Your task to perform on an android device: turn off notifications settings in the gmail app Image 0: 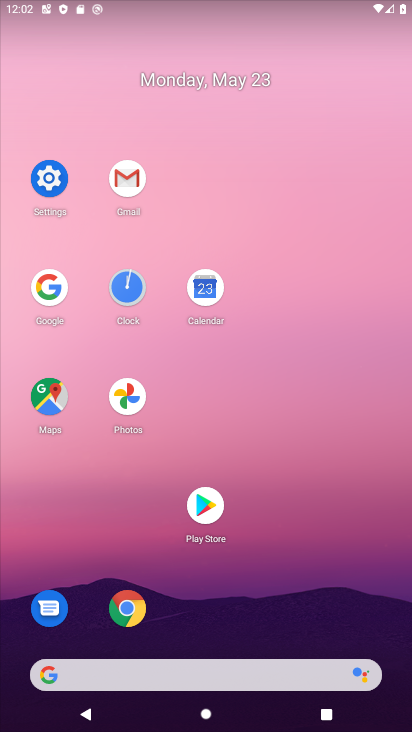
Step 0: click (115, 178)
Your task to perform on an android device: turn off notifications settings in the gmail app Image 1: 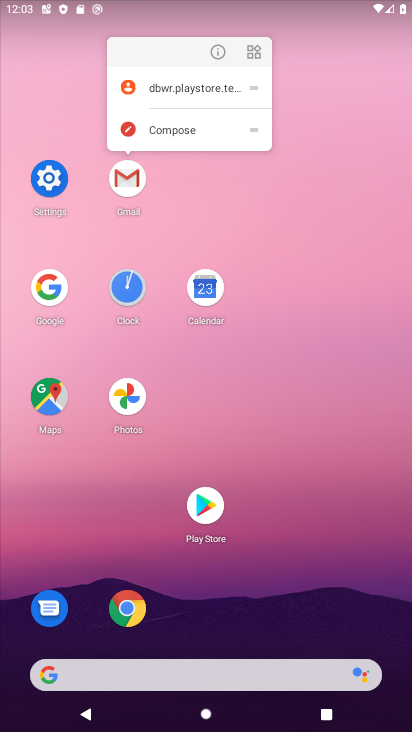
Step 1: click (127, 202)
Your task to perform on an android device: turn off notifications settings in the gmail app Image 2: 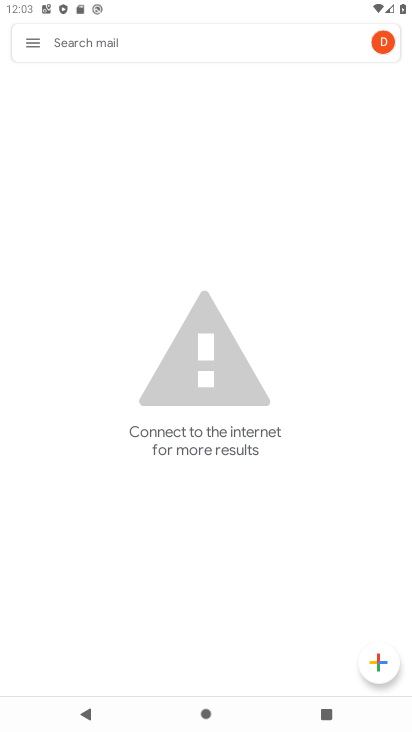
Step 2: click (34, 45)
Your task to perform on an android device: turn off notifications settings in the gmail app Image 3: 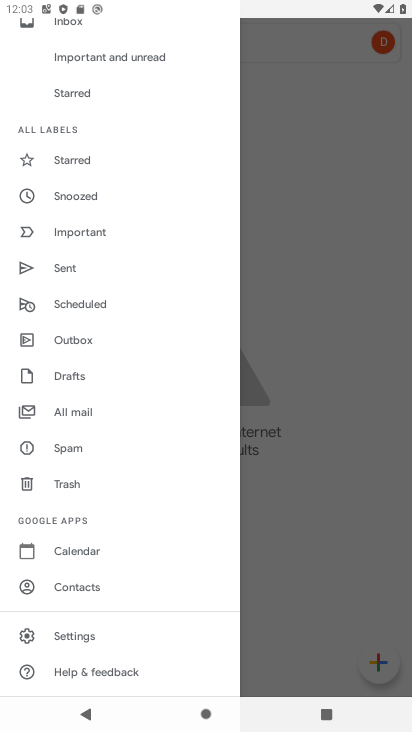
Step 3: click (115, 632)
Your task to perform on an android device: turn off notifications settings in the gmail app Image 4: 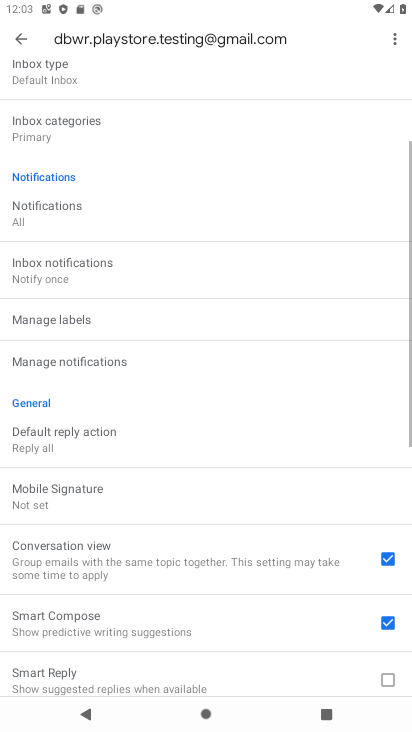
Step 4: click (107, 210)
Your task to perform on an android device: turn off notifications settings in the gmail app Image 5: 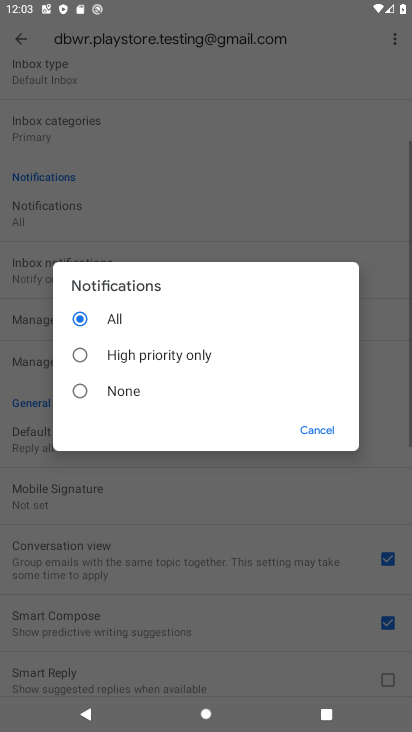
Step 5: click (105, 392)
Your task to perform on an android device: turn off notifications settings in the gmail app Image 6: 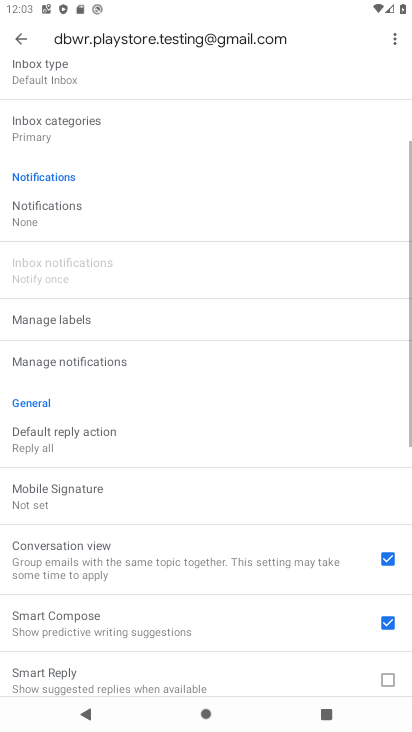
Step 6: task complete